Your task to perform on an android device: set the timer Image 0: 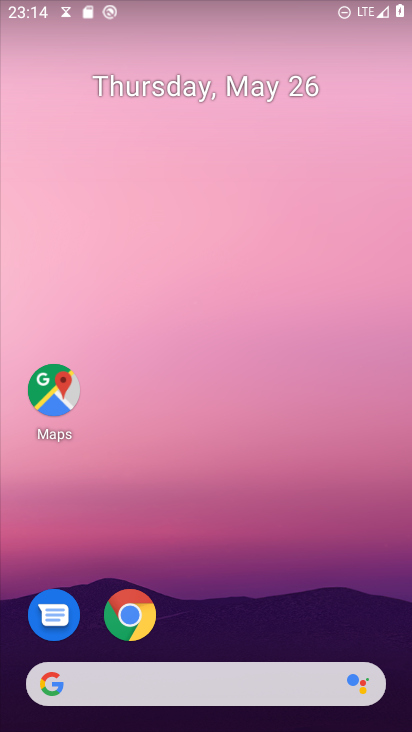
Step 0: drag from (239, 609) to (267, 261)
Your task to perform on an android device: set the timer Image 1: 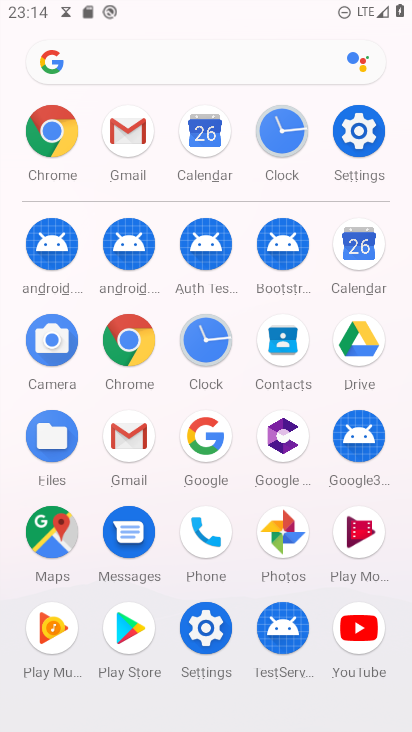
Step 1: click (294, 129)
Your task to perform on an android device: set the timer Image 2: 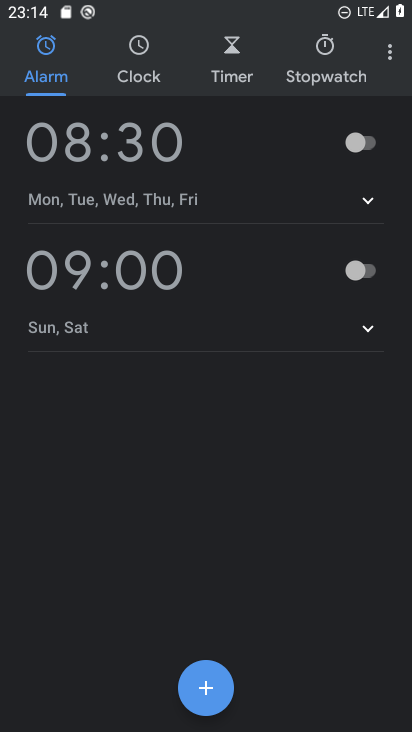
Step 2: click (210, 50)
Your task to perform on an android device: set the timer Image 3: 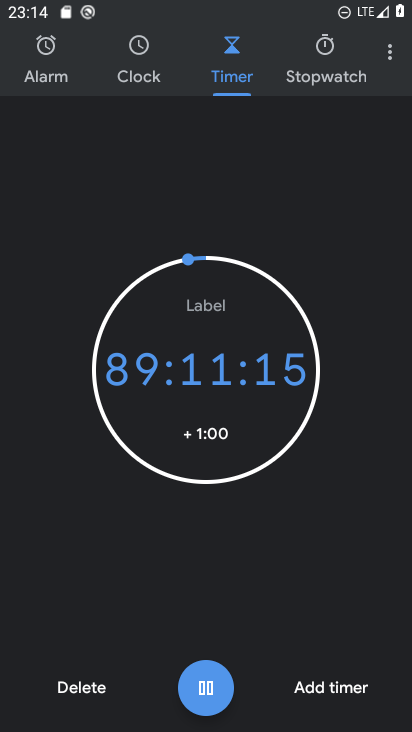
Step 3: click (307, 686)
Your task to perform on an android device: set the timer Image 4: 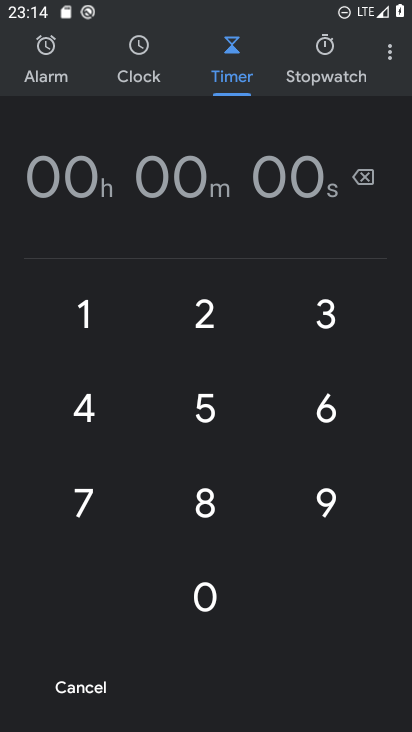
Step 4: click (135, 178)
Your task to perform on an android device: set the timer Image 5: 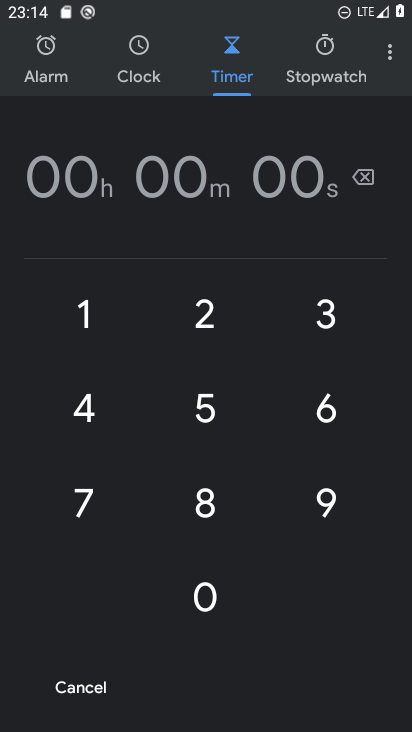
Step 5: type "1111111111"
Your task to perform on an android device: set the timer Image 6: 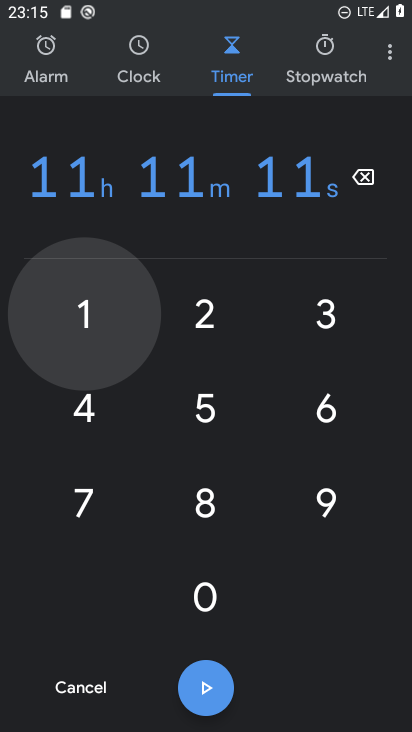
Step 6: task complete